Your task to perform on an android device: uninstall "Adobe Acrobat Reader" Image 0: 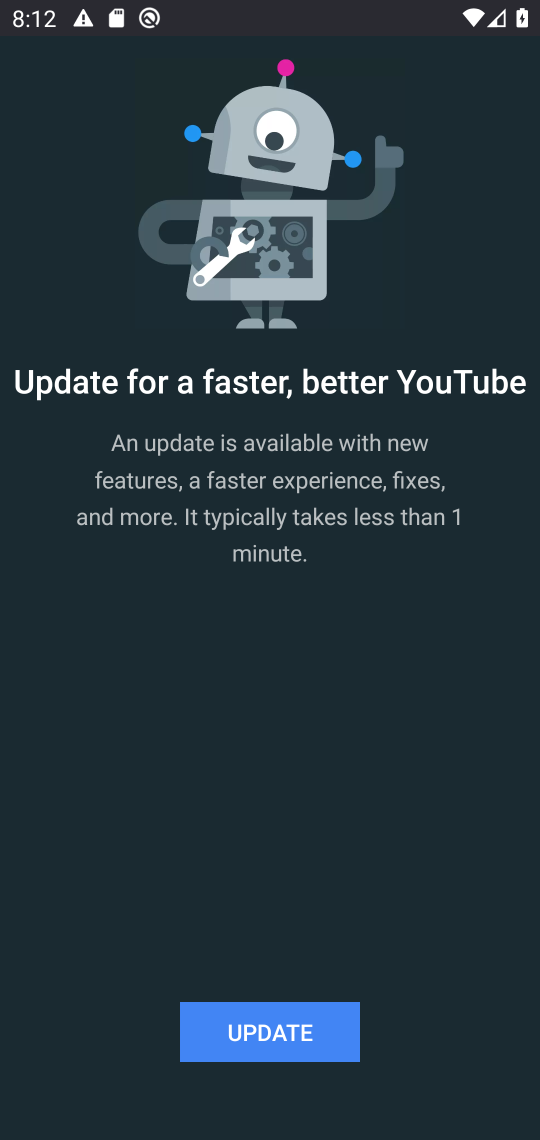
Step 0: press home button
Your task to perform on an android device: uninstall "Adobe Acrobat Reader" Image 1: 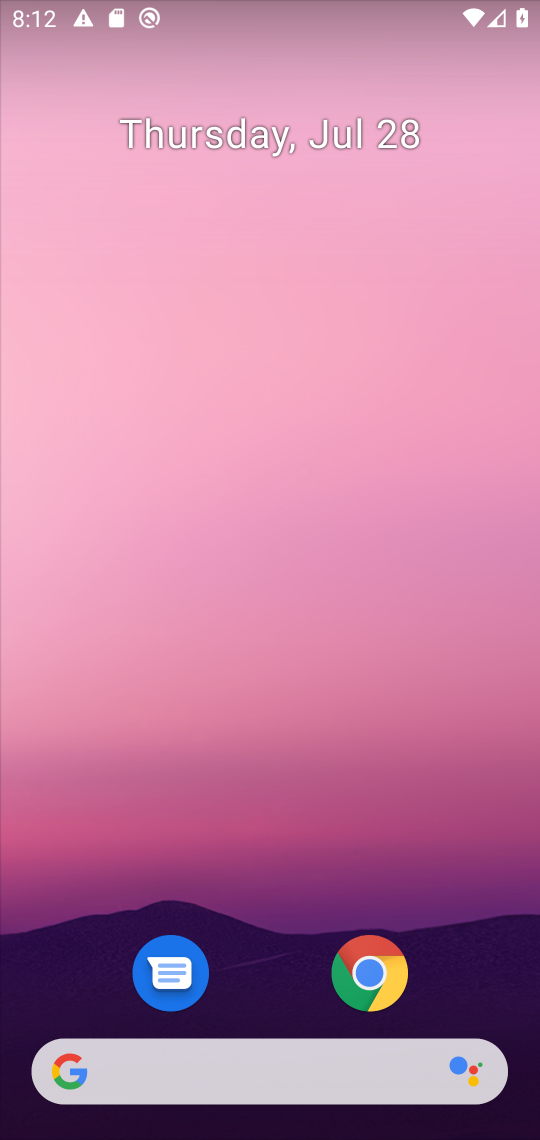
Step 1: drag from (309, 1018) to (289, 164)
Your task to perform on an android device: uninstall "Adobe Acrobat Reader" Image 2: 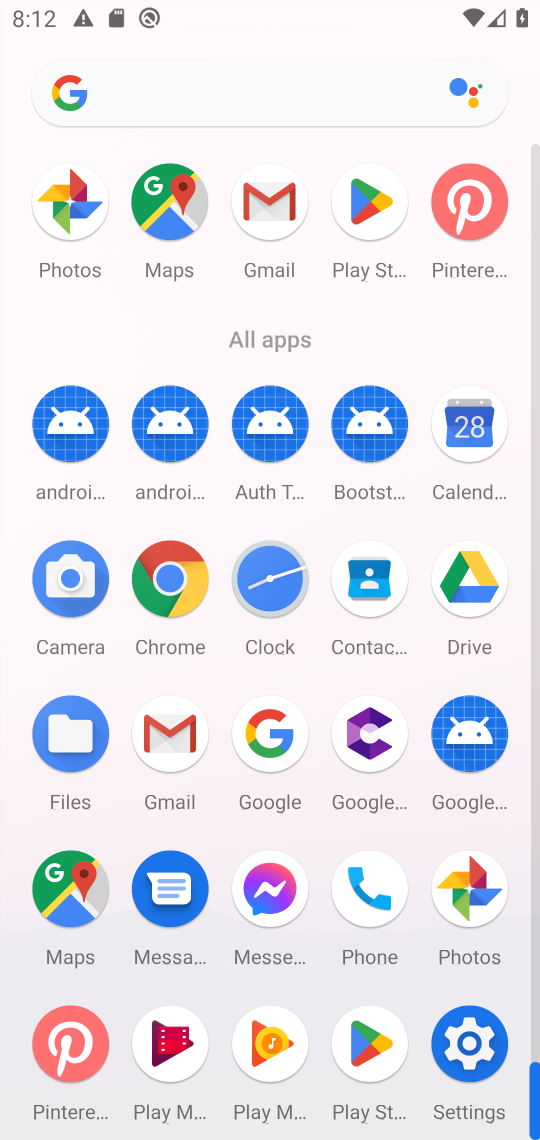
Step 2: drag from (201, 750) to (235, 138)
Your task to perform on an android device: uninstall "Adobe Acrobat Reader" Image 3: 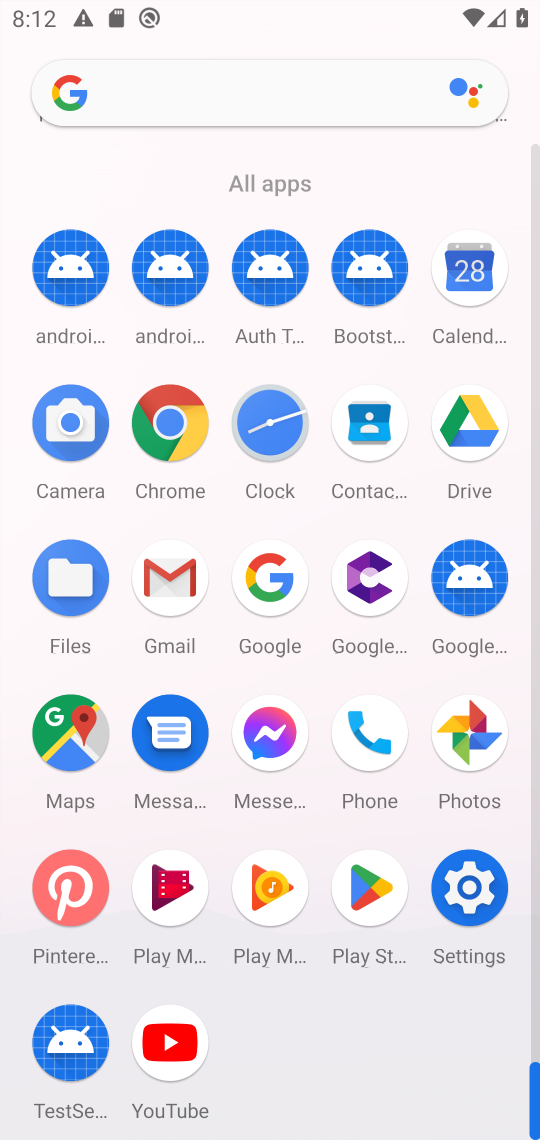
Step 3: click (378, 895)
Your task to perform on an android device: uninstall "Adobe Acrobat Reader" Image 4: 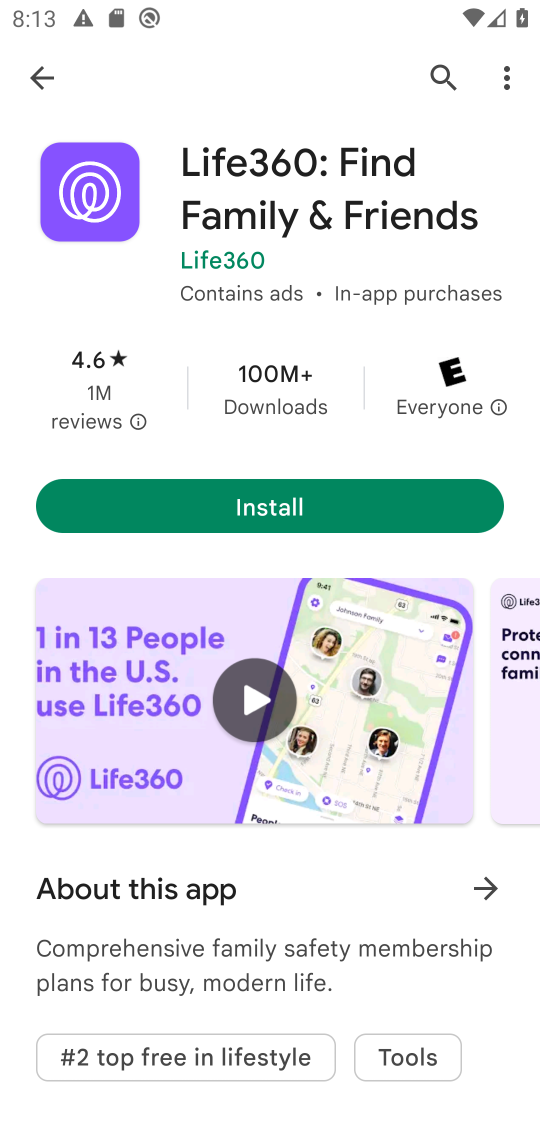
Step 4: click (44, 75)
Your task to perform on an android device: uninstall "Adobe Acrobat Reader" Image 5: 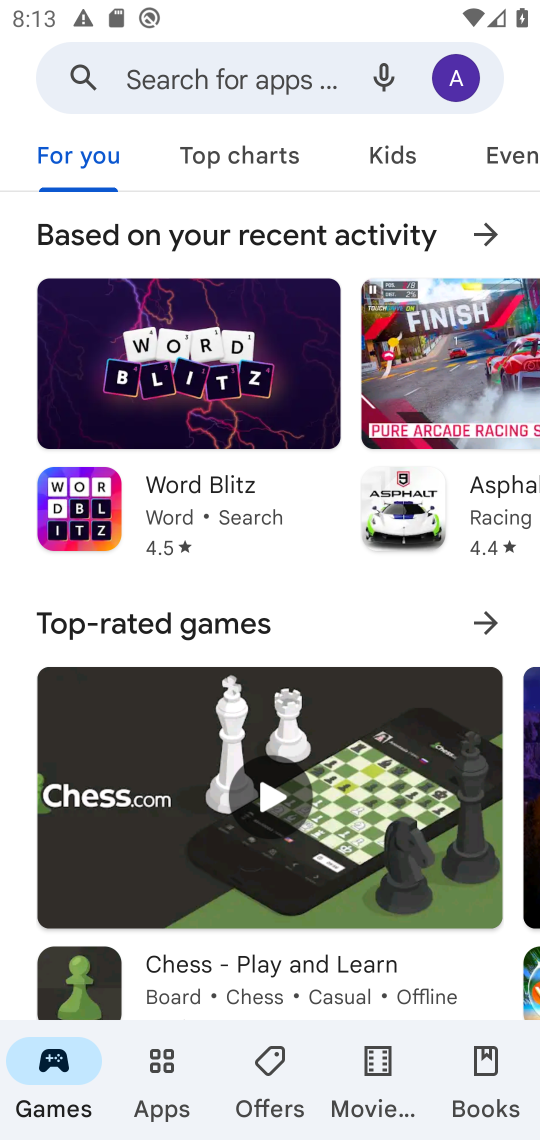
Step 5: click (218, 94)
Your task to perform on an android device: uninstall "Adobe Acrobat Reader" Image 6: 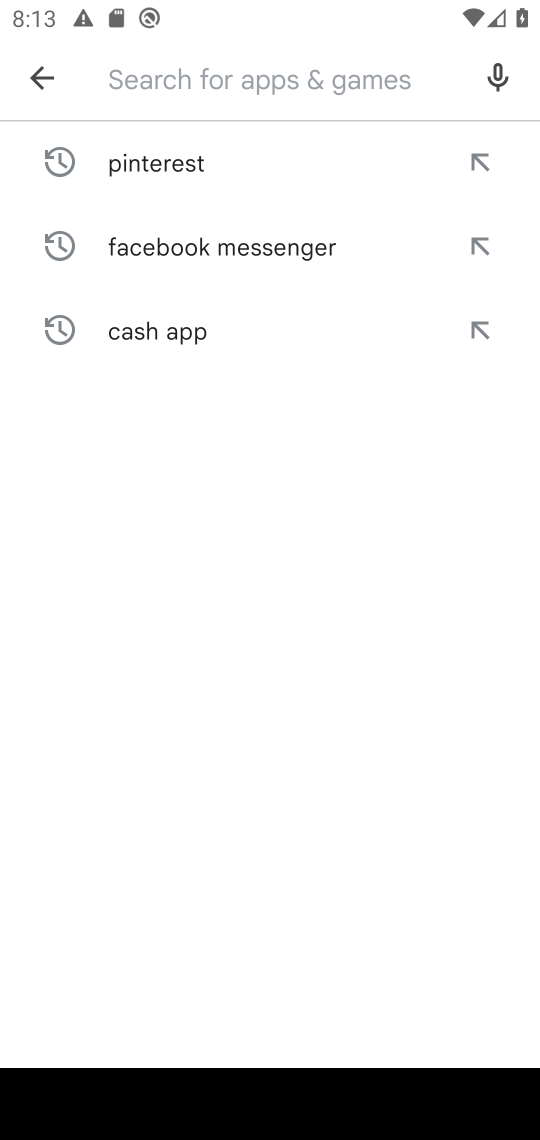
Step 6: type "Adobe Acrobat Reader"
Your task to perform on an android device: uninstall "Adobe Acrobat Reader" Image 7: 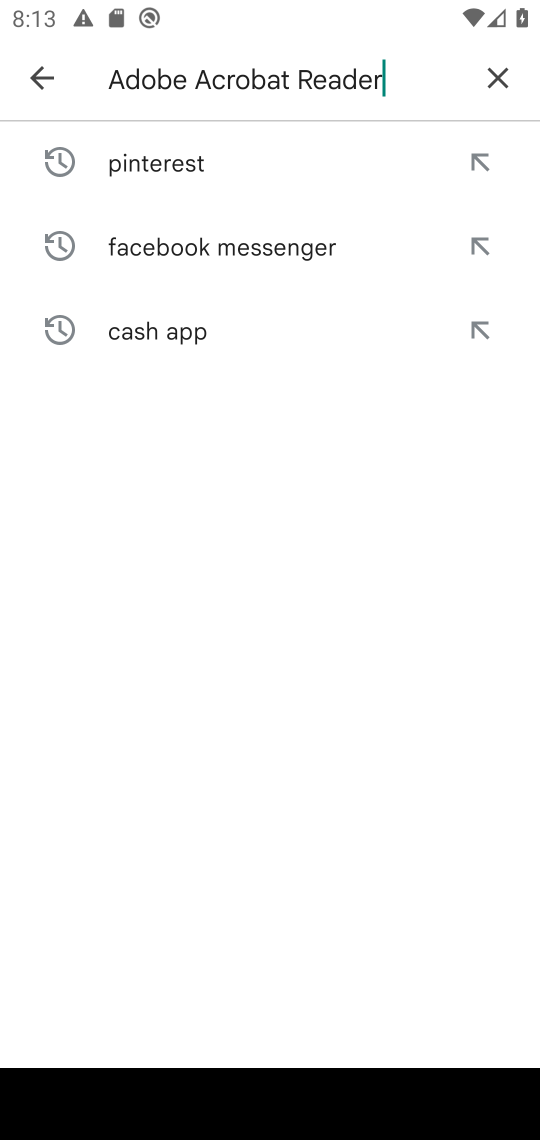
Step 7: type ""
Your task to perform on an android device: uninstall "Adobe Acrobat Reader" Image 8: 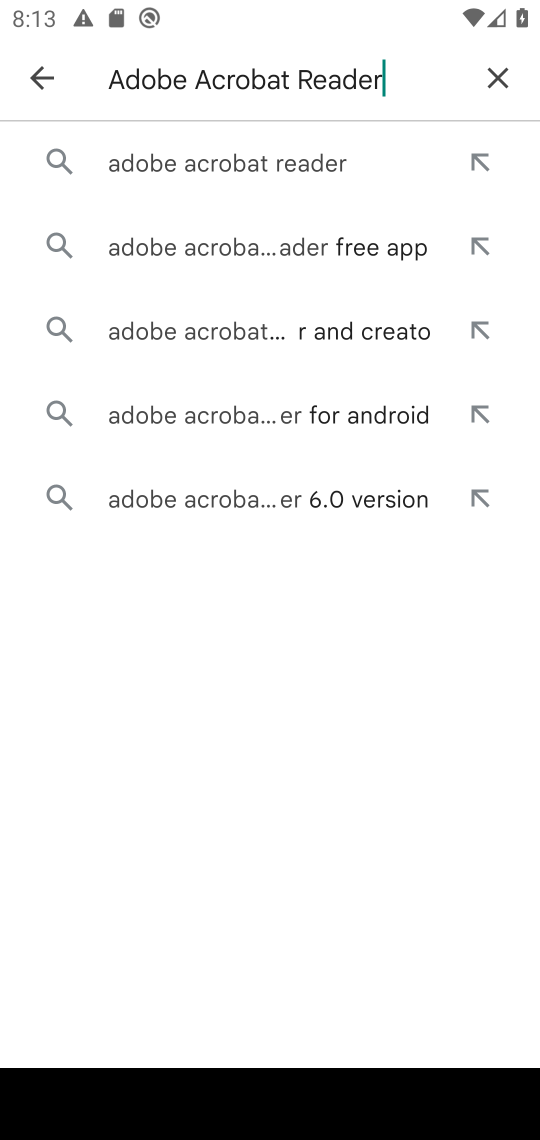
Step 8: click (215, 156)
Your task to perform on an android device: uninstall "Adobe Acrobat Reader" Image 9: 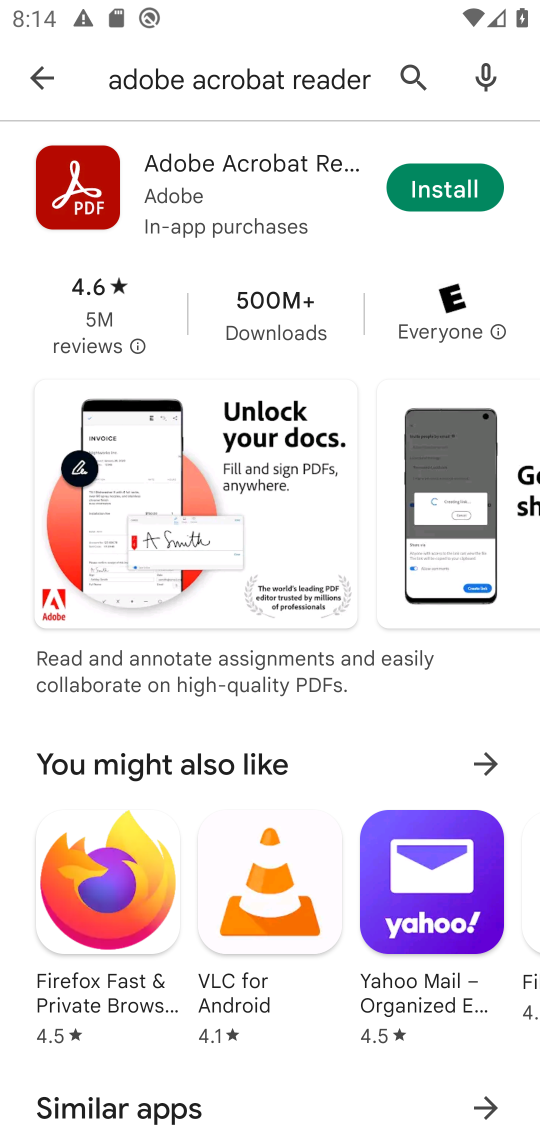
Step 9: task complete